Your task to perform on an android device: change text size in settings app Image 0: 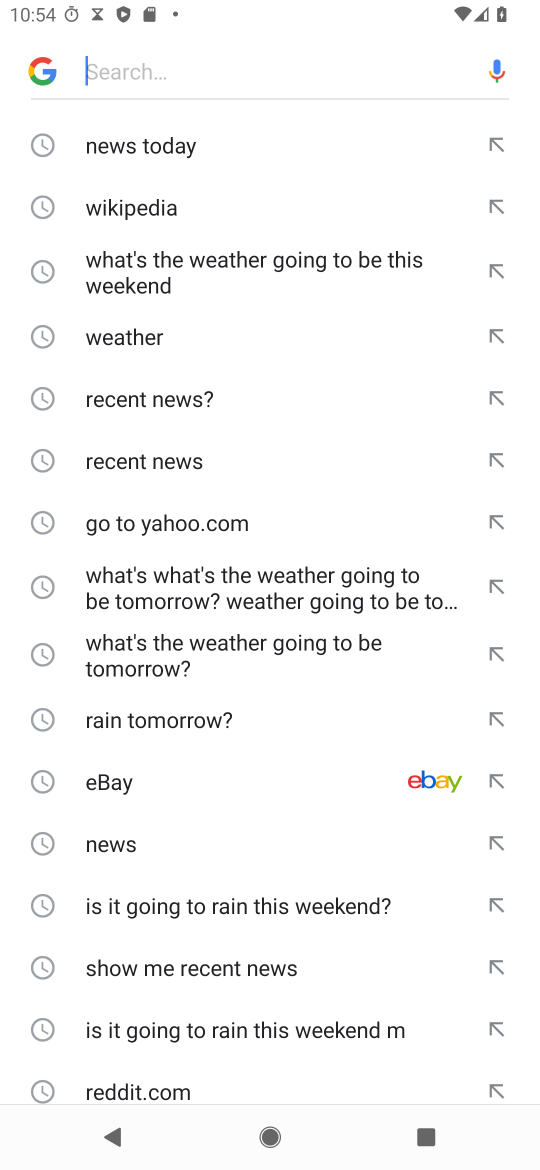
Step 0: press home button
Your task to perform on an android device: change text size in settings app Image 1: 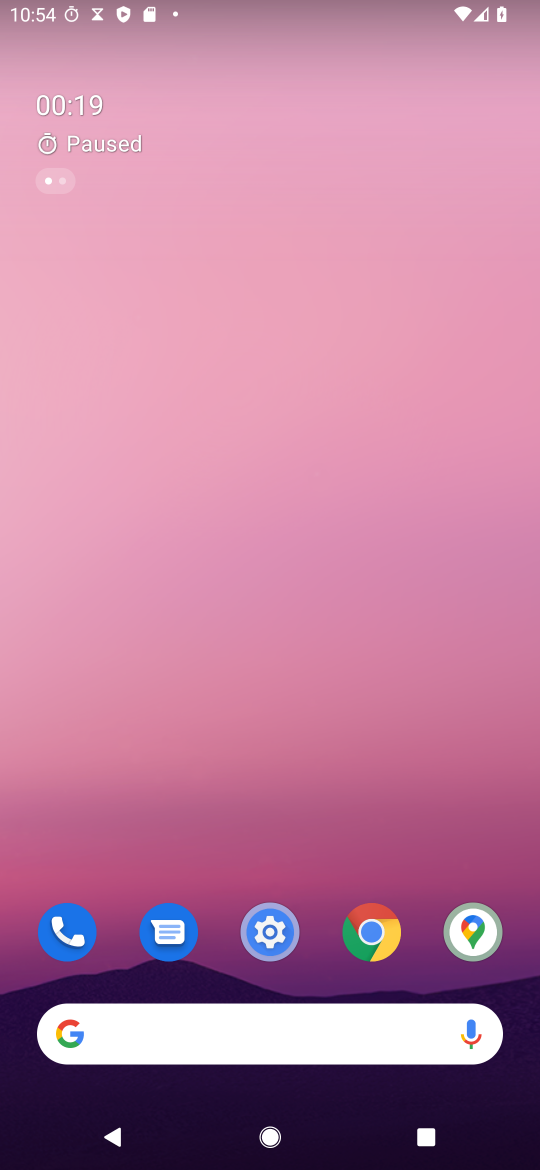
Step 1: drag from (181, 1038) to (216, 337)
Your task to perform on an android device: change text size in settings app Image 2: 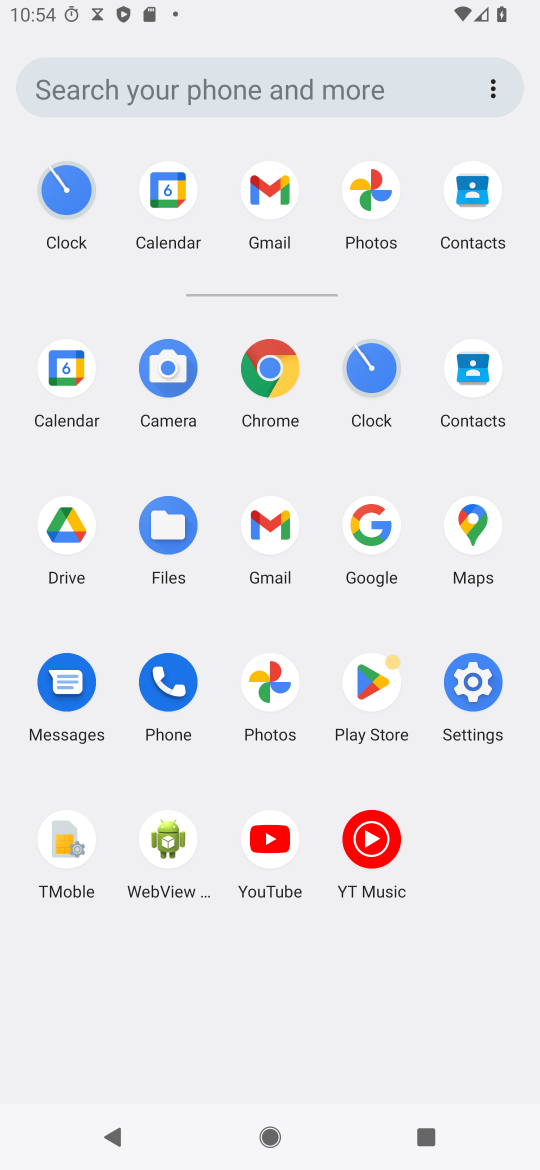
Step 2: click (474, 679)
Your task to perform on an android device: change text size in settings app Image 3: 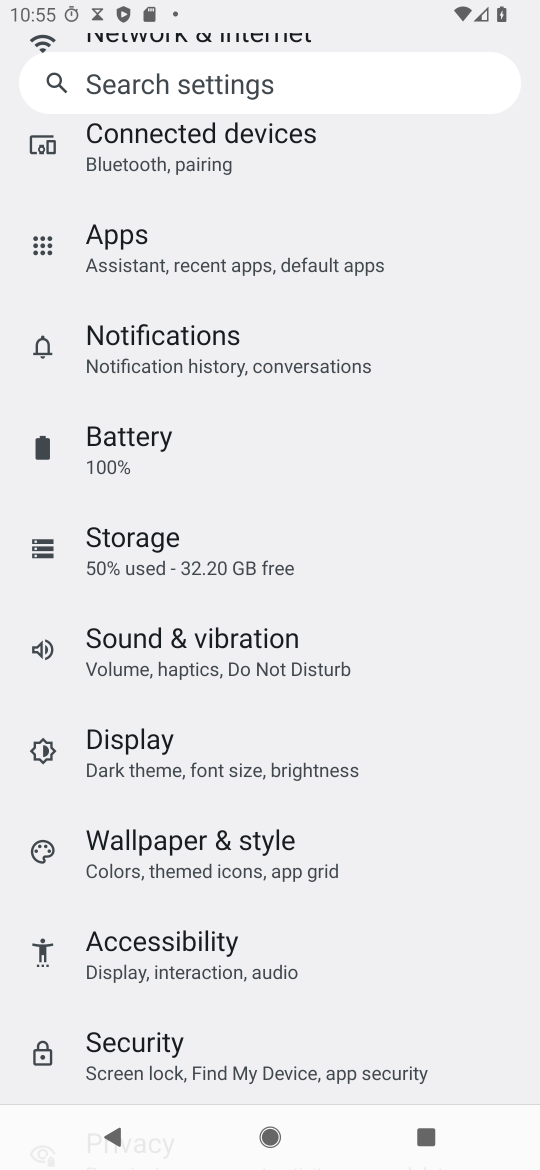
Step 3: drag from (286, 301) to (286, 542)
Your task to perform on an android device: change text size in settings app Image 4: 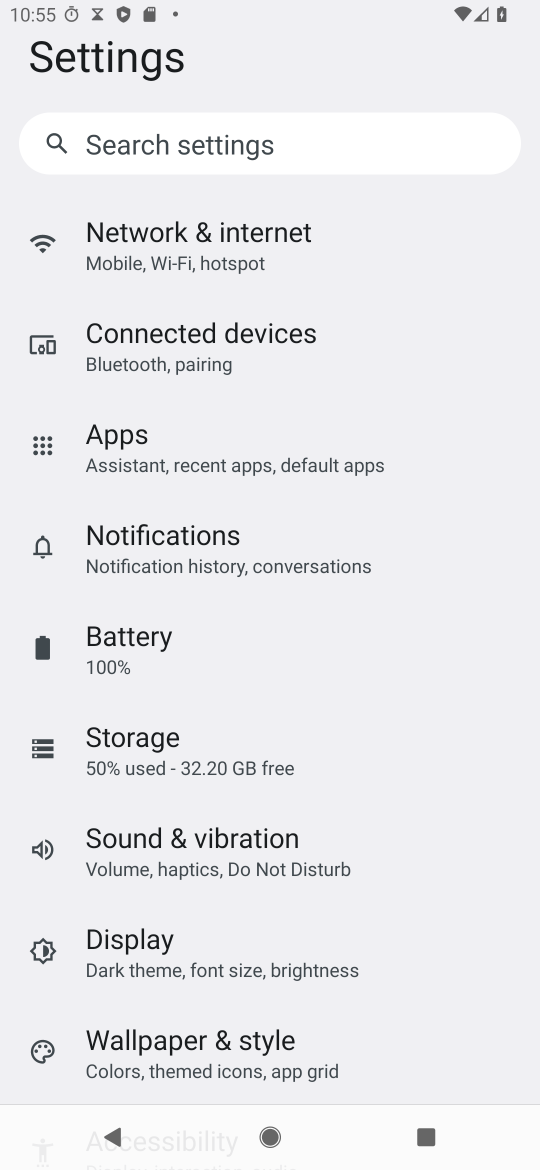
Step 4: drag from (254, 916) to (401, 636)
Your task to perform on an android device: change text size in settings app Image 5: 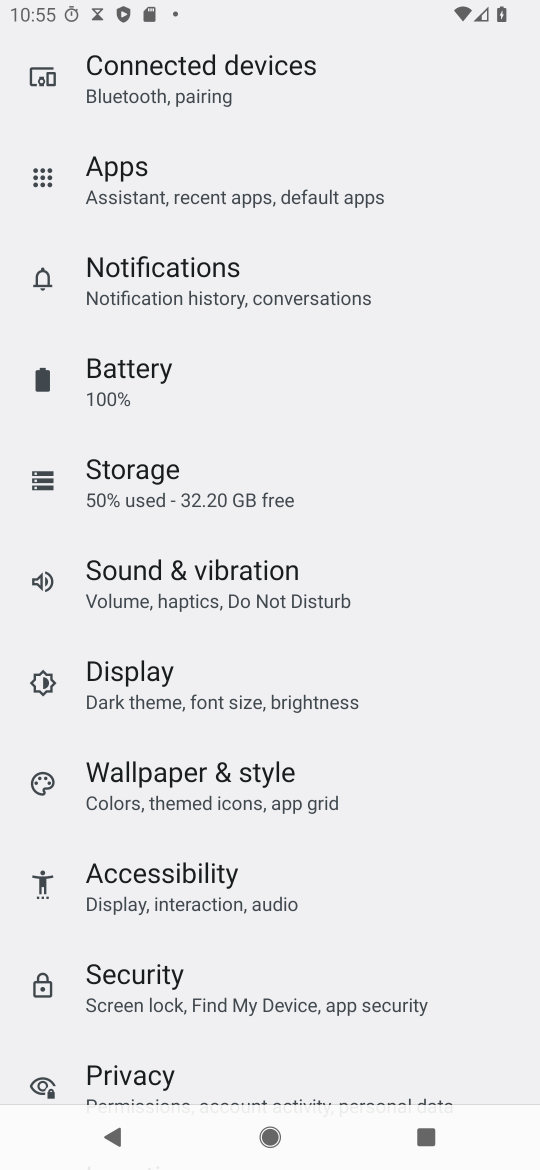
Step 5: click (173, 896)
Your task to perform on an android device: change text size in settings app Image 6: 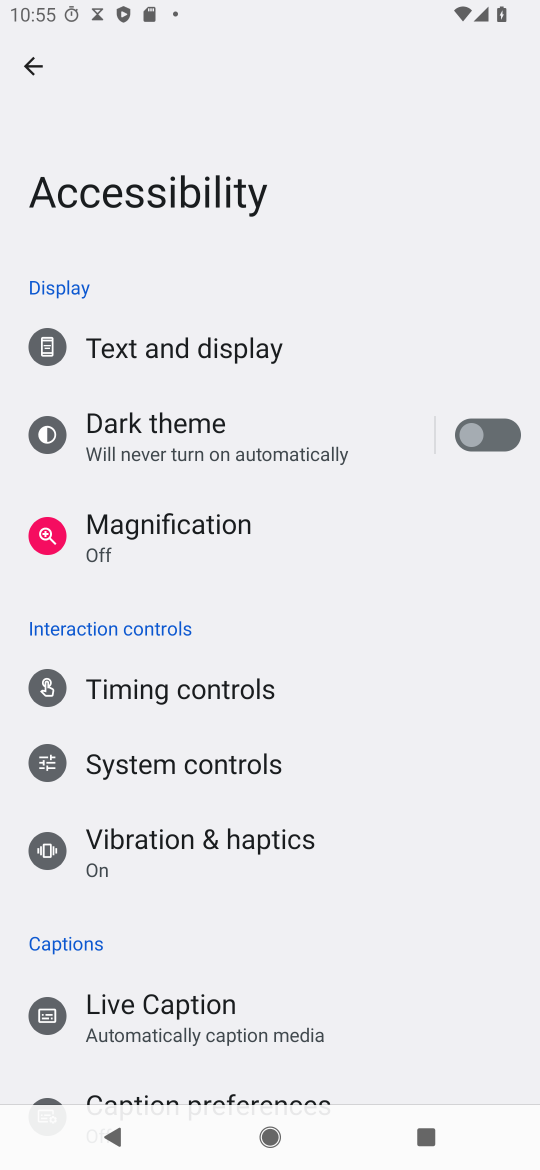
Step 6: click (213, 345)
Your task to perform on an android device: change text size in settings app Image 7: 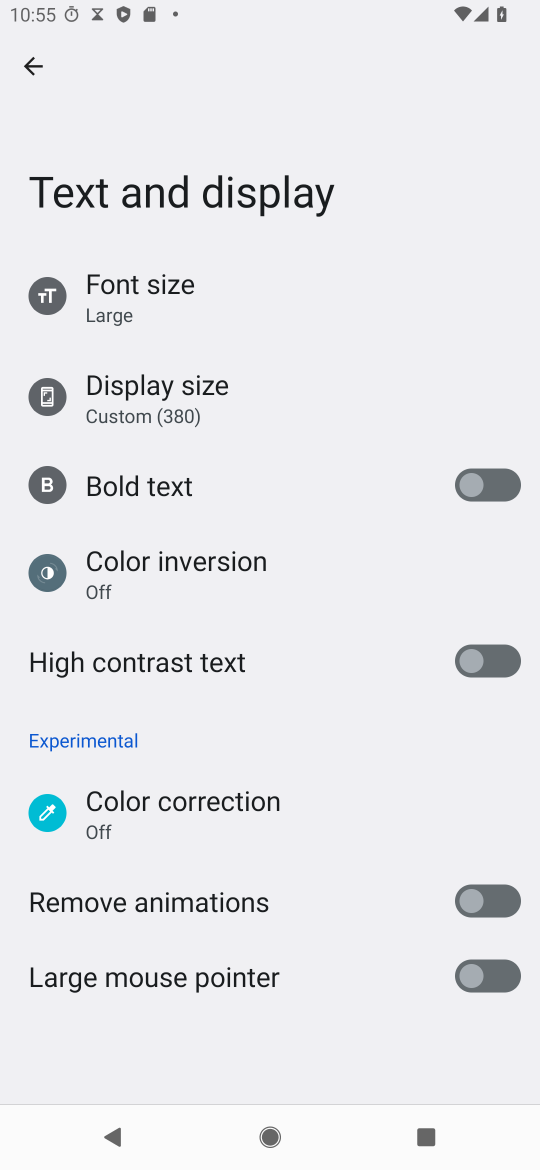
Step 7: click (162, 296)
Your task to perform on an android device: change text size in settings app Image 8: 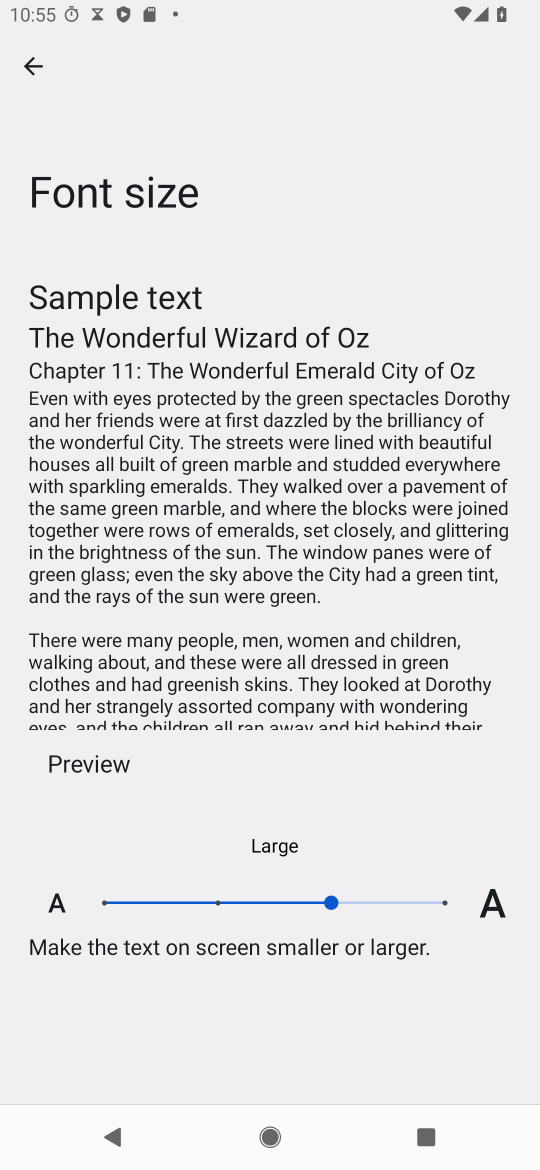
Step 8: click (448, 892)
Your task to perform on an android device: change text size in settings app Image 9: 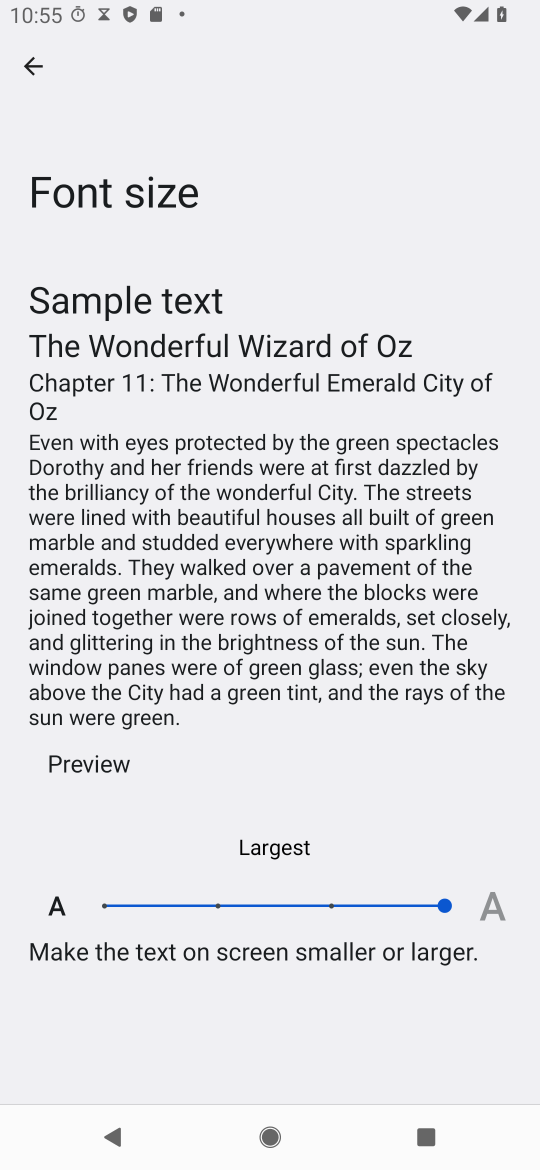
Step 9: task complete